Your task to perform on an android device: Open calendar and show me the second week of next month Image 0: 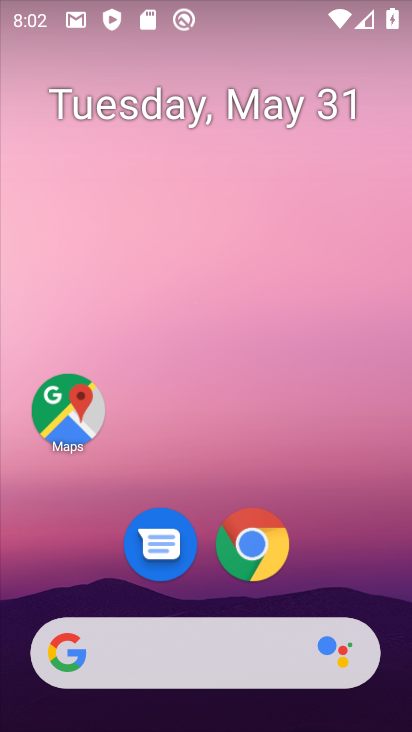
Step 0: drag from (228, 622) to (229, 186)
Your task to perform on an android device: Open calendar and show me the second week of next month Image 1: 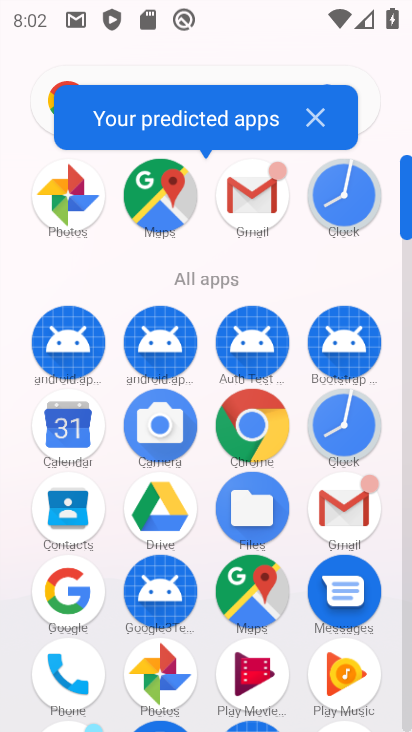
Step 1: click (76, 439)
Your task to perform on an android device: Open calendar and show me the second week of next month Image 2: 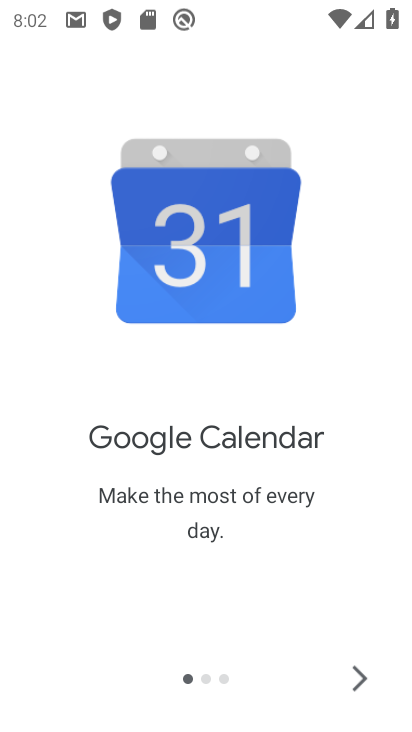
Step 2: click (372, 670)
Your task to perform on an android device: Open calendar and show me the second week of next month Image 3: 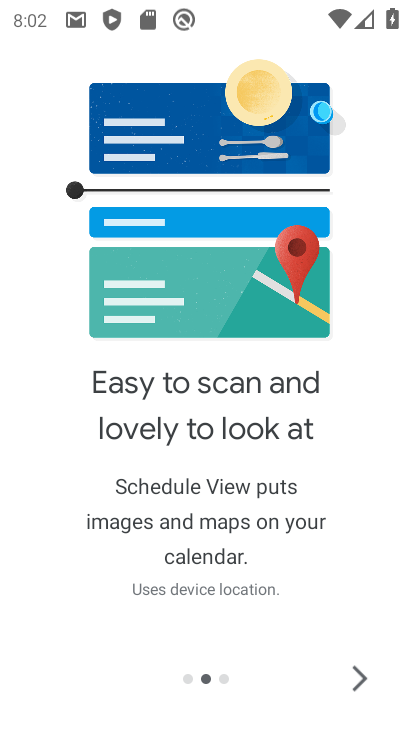
Step 3: click (372, 670)
Your task to perform on an android device: Open calendar and show me the second week of next month Image 4: 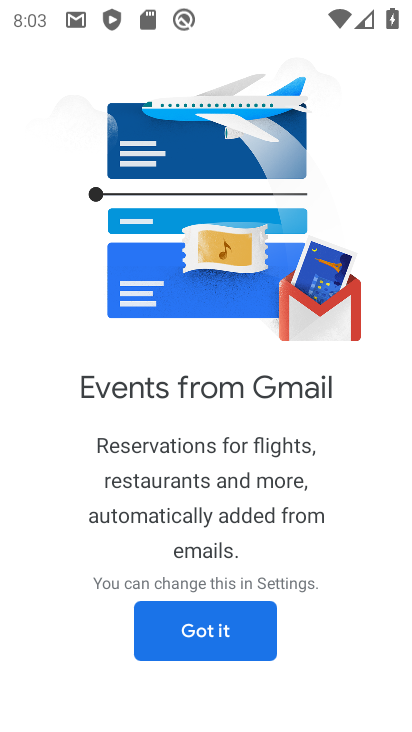
Step 4: click (358, 672)
Your task to perform on an android device: Open calendar and show me the second week of next month Image 5: 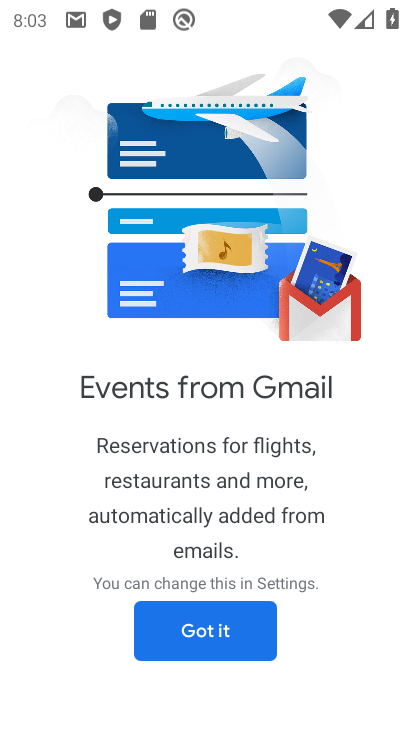
Step 5: click (210, 629)
Your task to perform on an android device: Open calendar and show me the second week of next month Image 6: 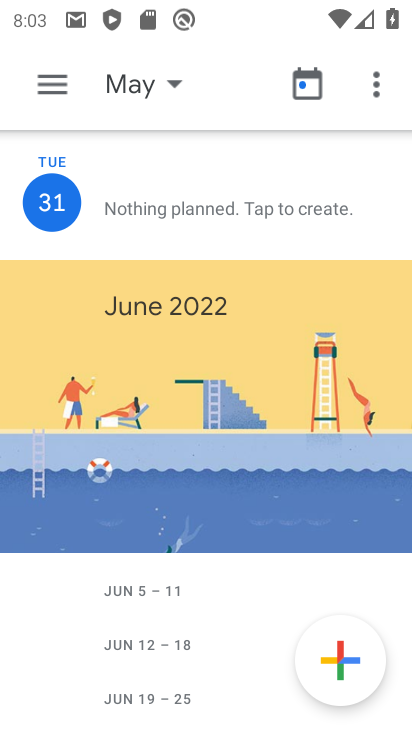
Step 6: click (58, 97)
Your task to perform on an android device: Open calendar and show me the second week of next month Image 7: 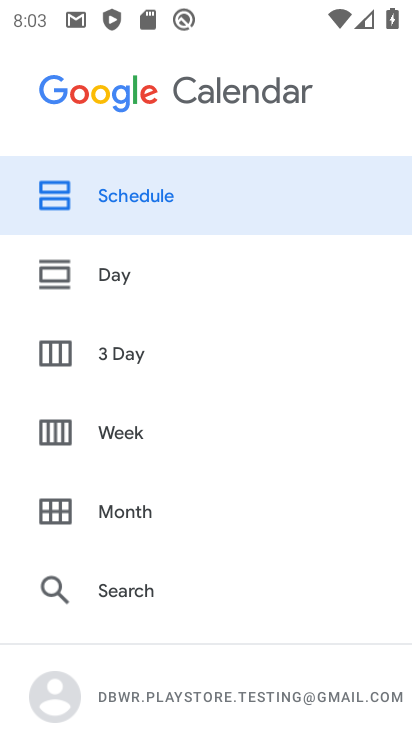
Step 7: click (179, 516)
Your task to perform on an android device: Open calendar and show me the second week of next month Image 8: 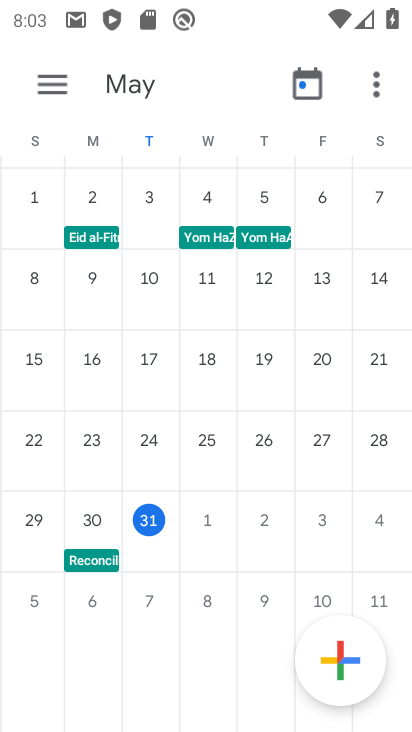
Step 8: task complete